Your task to perform on an android device: open a bookmark in the chrome app Image 0: 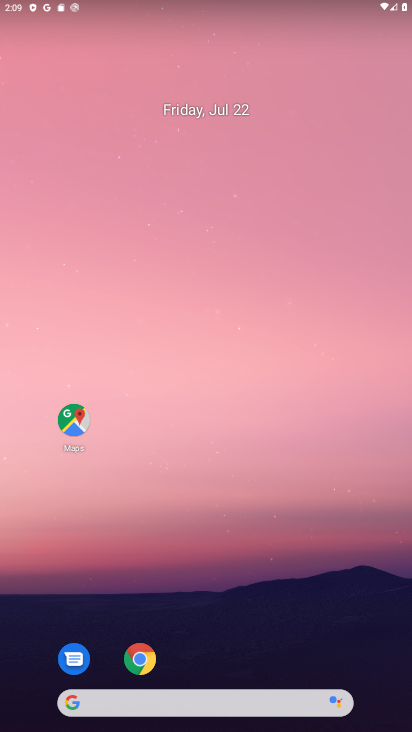
Step 0: click (136, 661)
Your task to perform on an android device: open a bookmark in the chrome app Image 1: 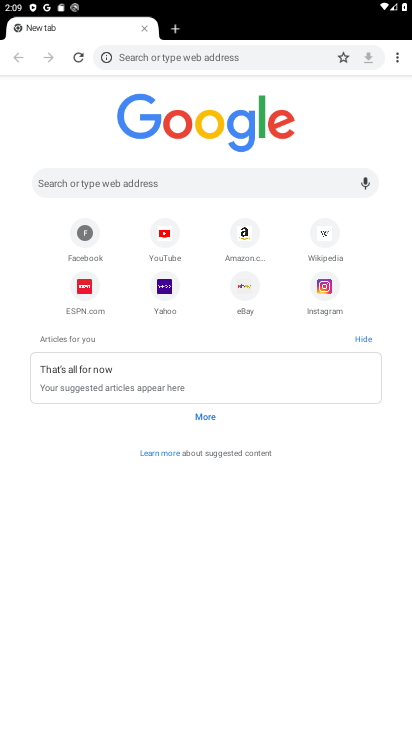
Step 1: click (397, 63)
Your task to perform on an android device: open a bookmark in the chrome app Image 2: 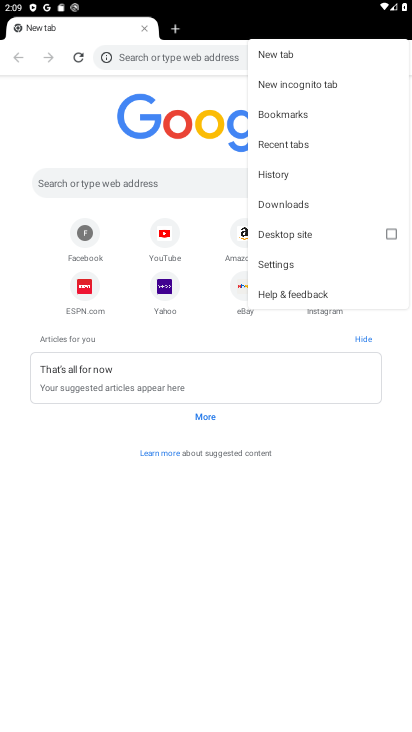
Step 2: click (278, 114)
Your task to perform on an android device: open a bookmark in the chrome app Image 3: 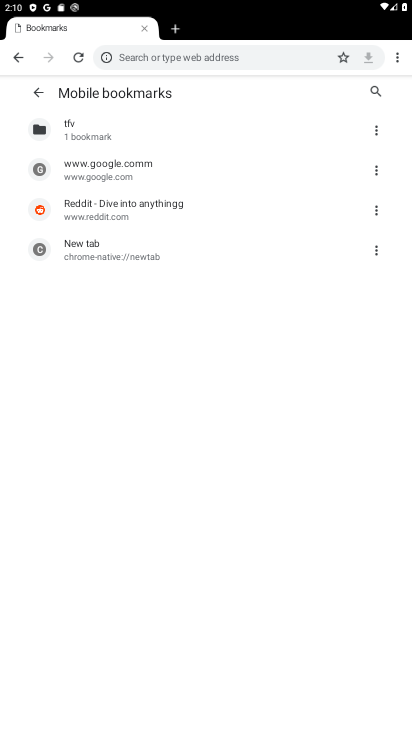
Step 3: click (105, 166)
Your task to perform on an android device: open a bookmark in the chrome app Image 4: 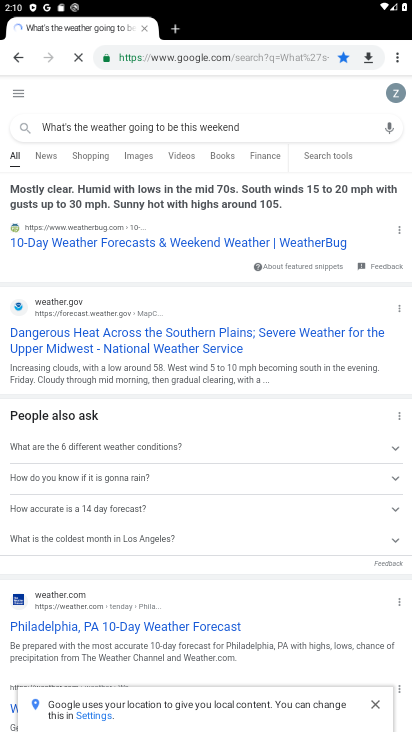
Step 4: task complete